Your task to perform on an android device: turn off location history Image 0: 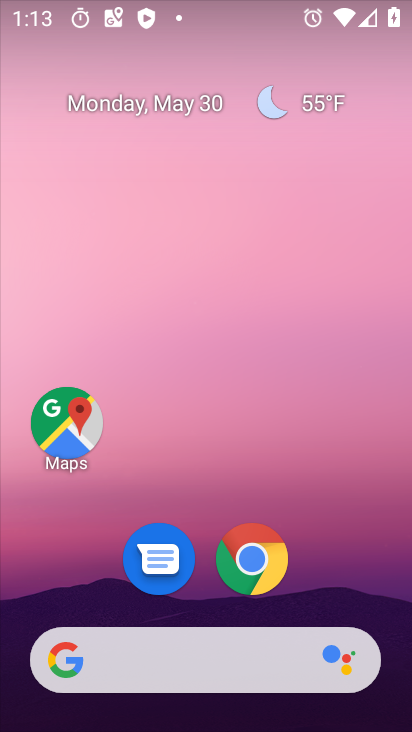
Step 0: drag from (158, 584) to (236, 170)
Your task to perform on an android device: turn off location history Image 1: 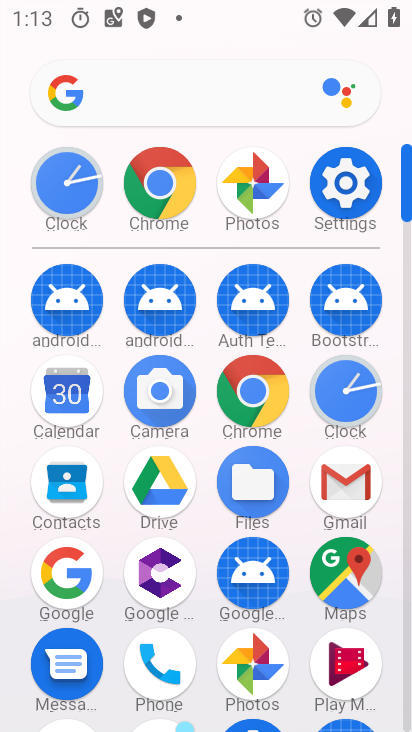
Step 1: click (344, 181)
Your task to perform on an android device: turn off location history Image 2: 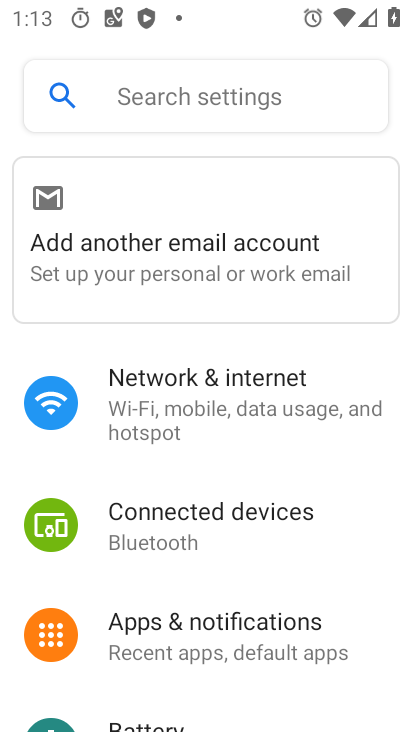
Step 2: drag from (178, 649) to (239, 195)
Your task to perform on an android device: turn off location history Image 3: 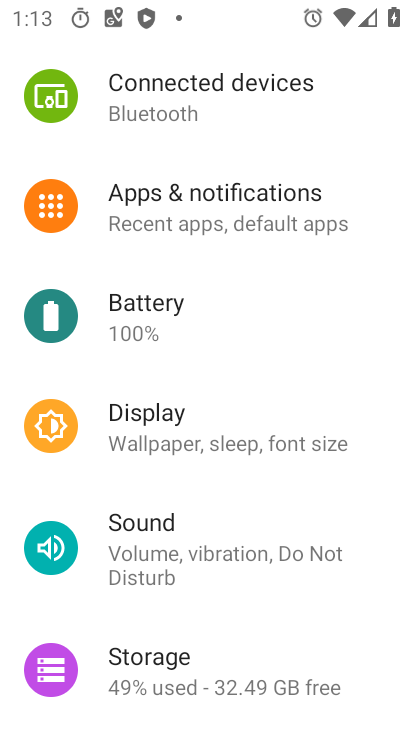
Step 3: drag from (185, 594) to (246, 99)
Your task to perform on an android device: turn off location history Image 4: 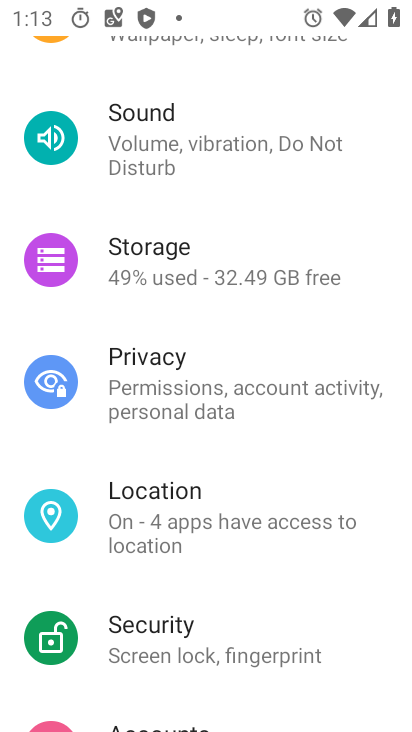
Step 4: click (128, 519)
Your task to perform on an android device: turn off location history Image 5: 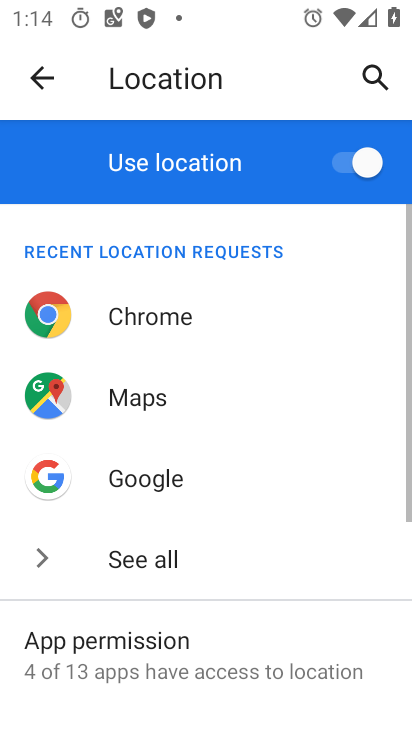
Step 5: drag from (115, 653) to (190, 210)
Your task to perform on an android device: turn off location history Image 6: 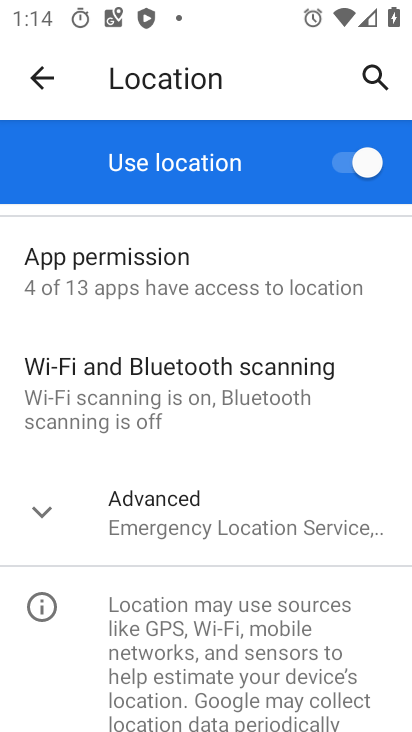
Step 6: click (170, 539)
Your task to perform on an android device: turn off location history Image 7: 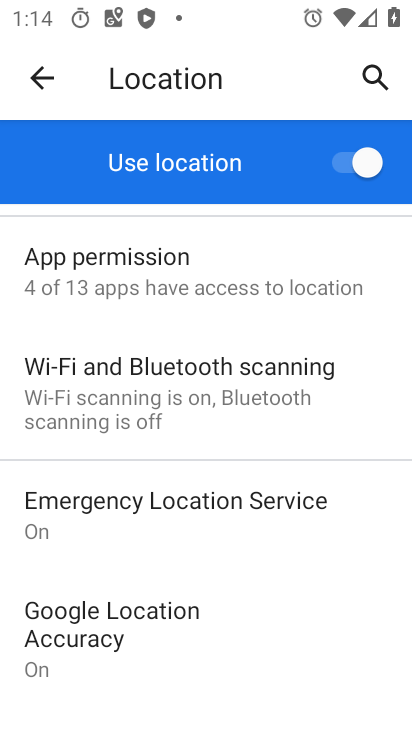
Step 7: drag from (166, 669) to (264, 248)
Your task to perform on an android device: turn off location history Image 8: 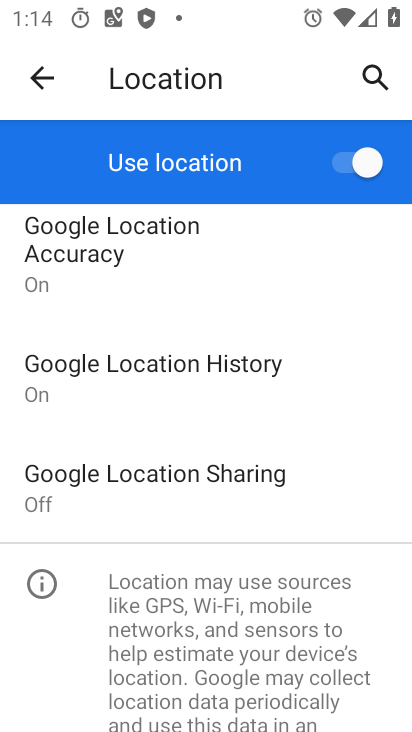
Step 8: click (161, 383)
Your task to perform on an android device: turn off location history Image 9: 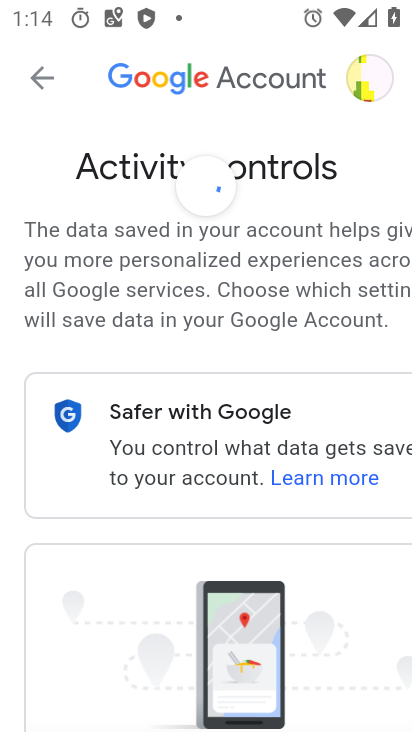
Step 9: drag from (179, 641) to (157, 220)
Your task to perform on an android device: turn off location history Image 10: 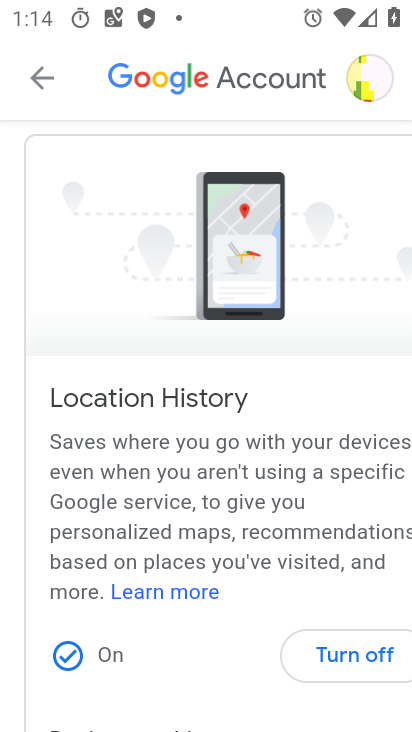
Step 10: click (329, 661)
Your task to perform on an android device: turn off location history Image 11: 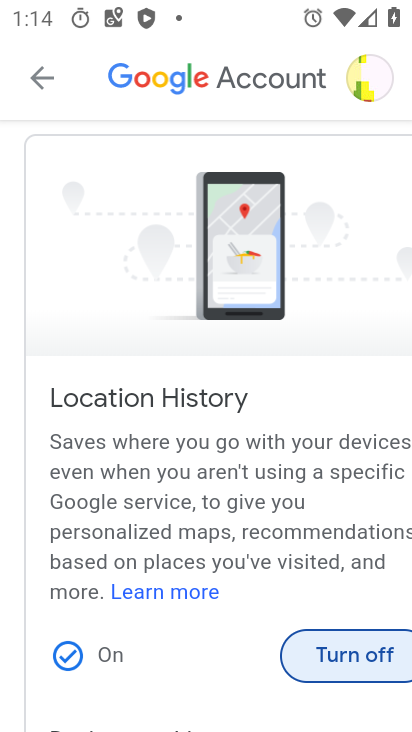
Step 11: click (346, 649)
Your task to perform on an android device: turn off location history Image 12: 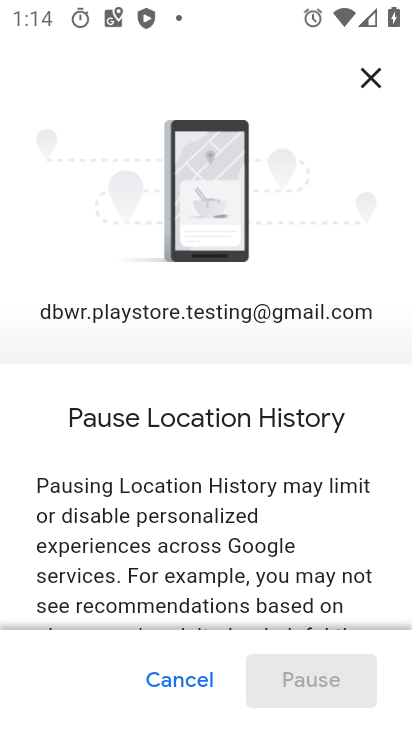
Step 12: drag from (236, 558) to (330, 2)
Your task to perform on an android device: turn off location history Image 13: 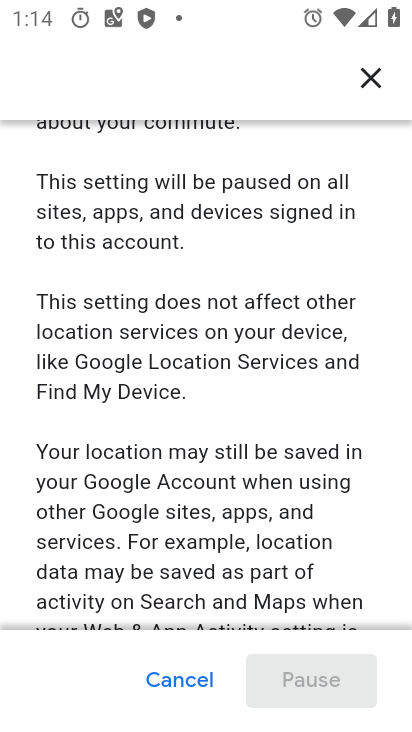
Step 13: drag from (262, 516) to (346, 56)
Your task to perform on an android device: turn off location history Image 14: 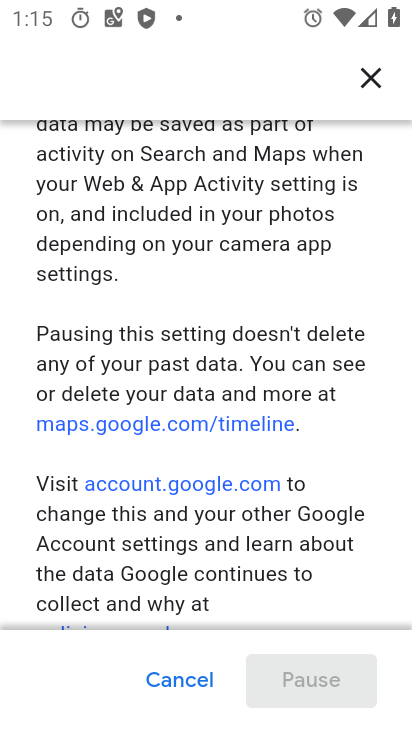
Step 14: drag from (186, 555) to (271, 61)
Your task to perform on an android device: turn off location history Image 15: 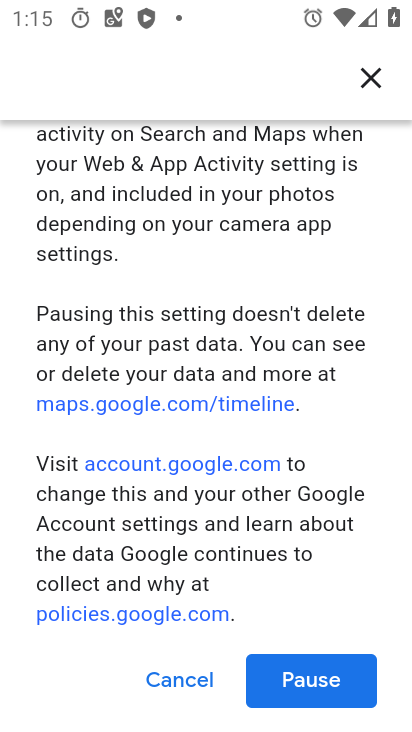
Step 15: click (304, 675)
Your task to perform on an android device: turn off location history Image 16: 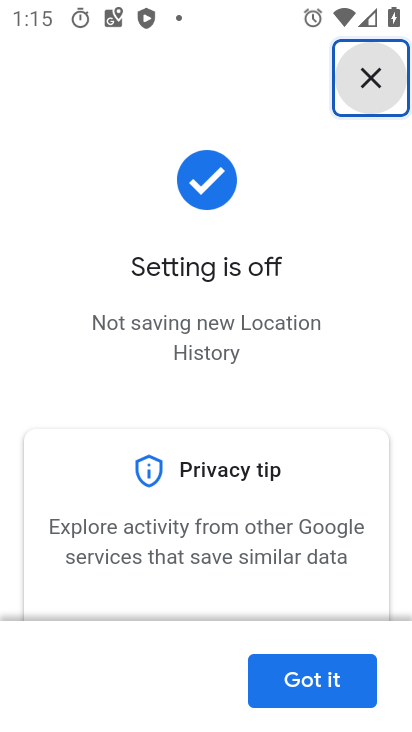
Step 16: click (301, 699)
Your task to perform on an android device: turn off location history Image 17: 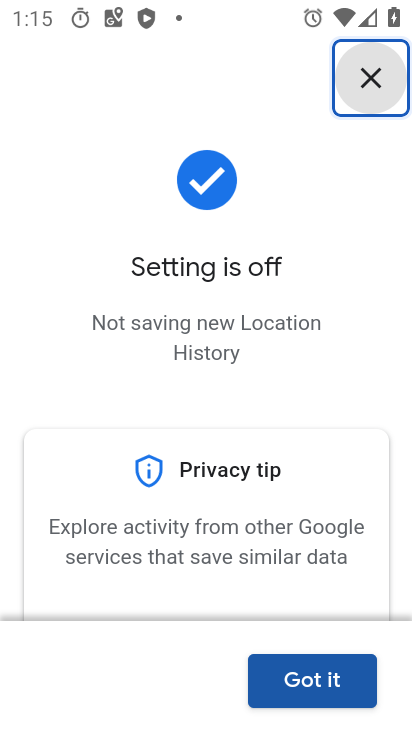
Step 17: task complete